Your task to perform on an android device: Search for 'The Girl on the Train' on Goodreads. Image 0: 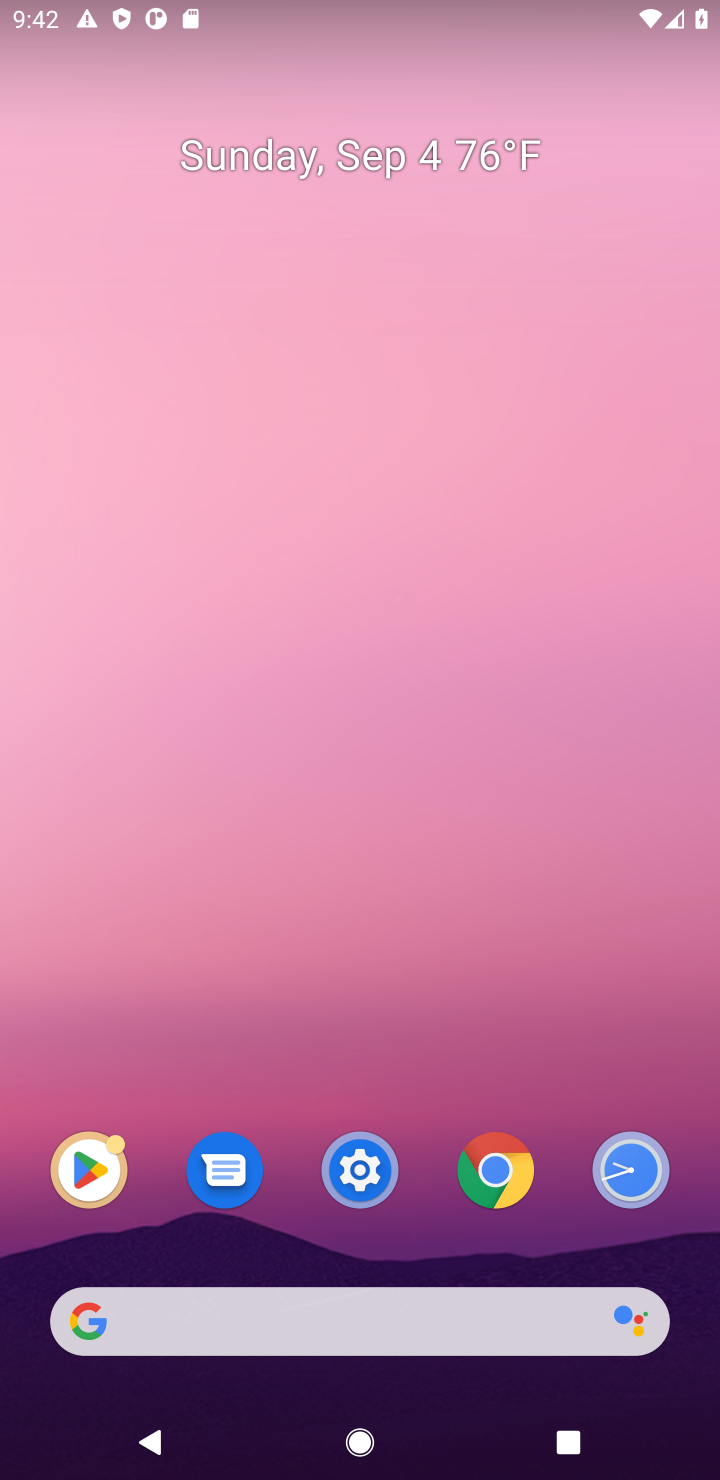
Step 0: click (368, 1313)
Your task to perform on an android device: Search for 'The Girl on the Train' on Goodreads. Image 1: 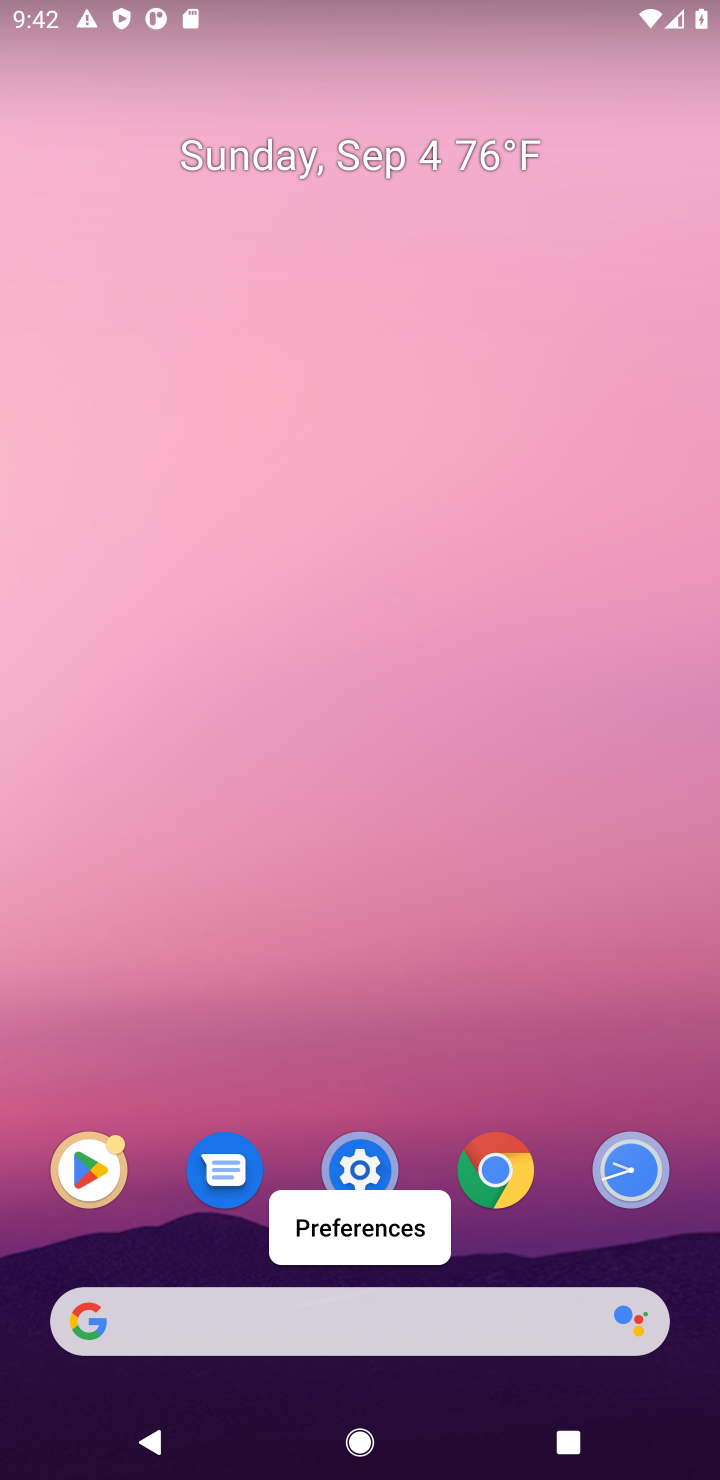
Step 1: click (310, 1324)
Your task to perform on an android device: Search for 'The Girl on the Train' on Goodreads. Image 2: 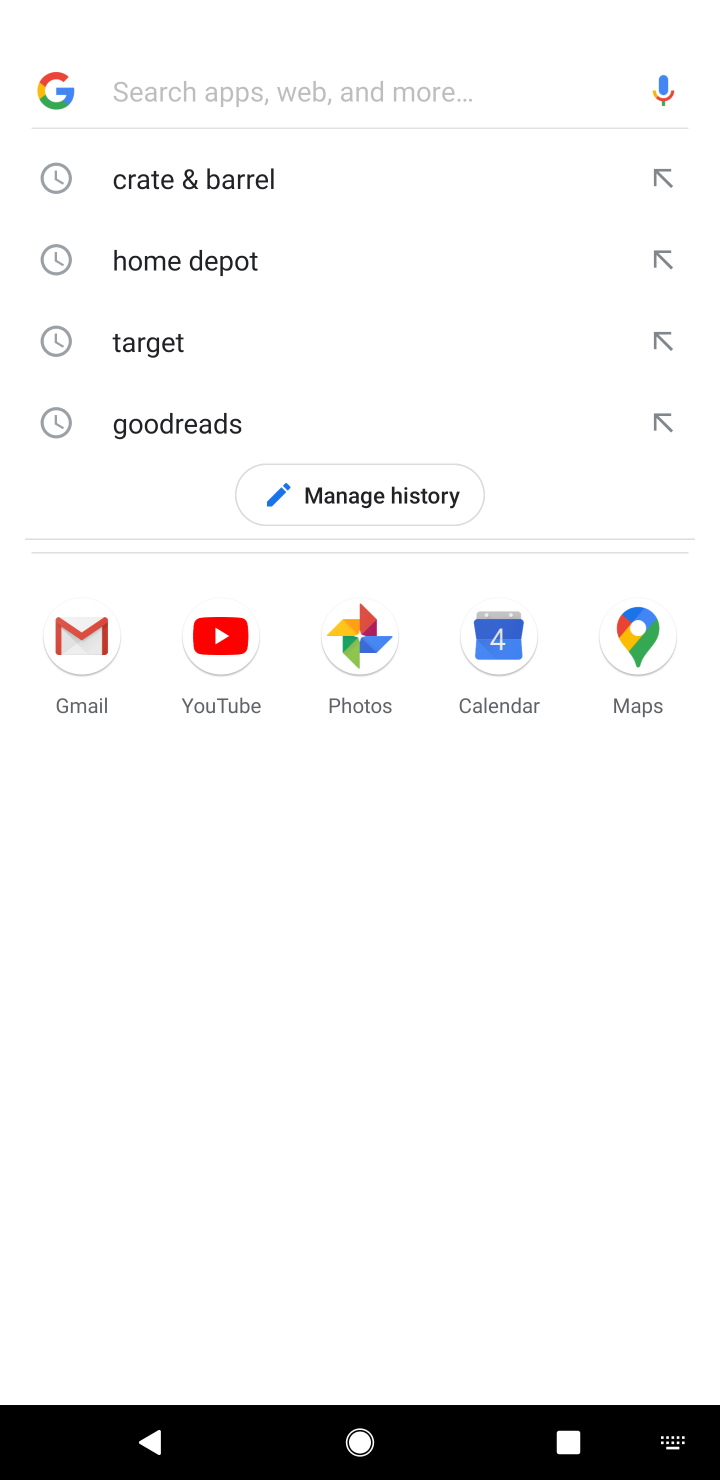
Step 2: click (184, 404)
Your task to perform on an android device: Search for 'The Girl on the Train' on Goodreads. Image 3: 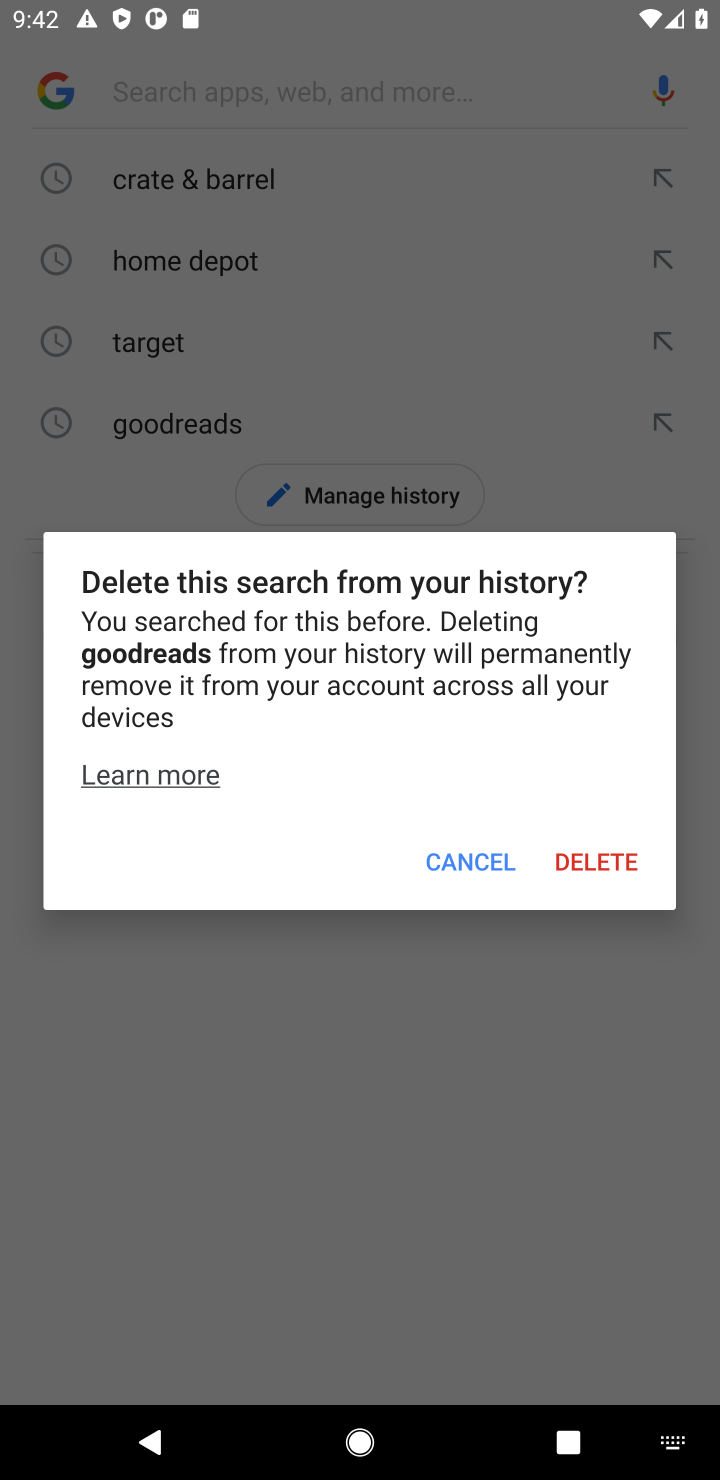
Step 3: click (500, 844)
Your task to perform on an android device: Search for 'The Girl on the Train' on Goodreads. Image 4: 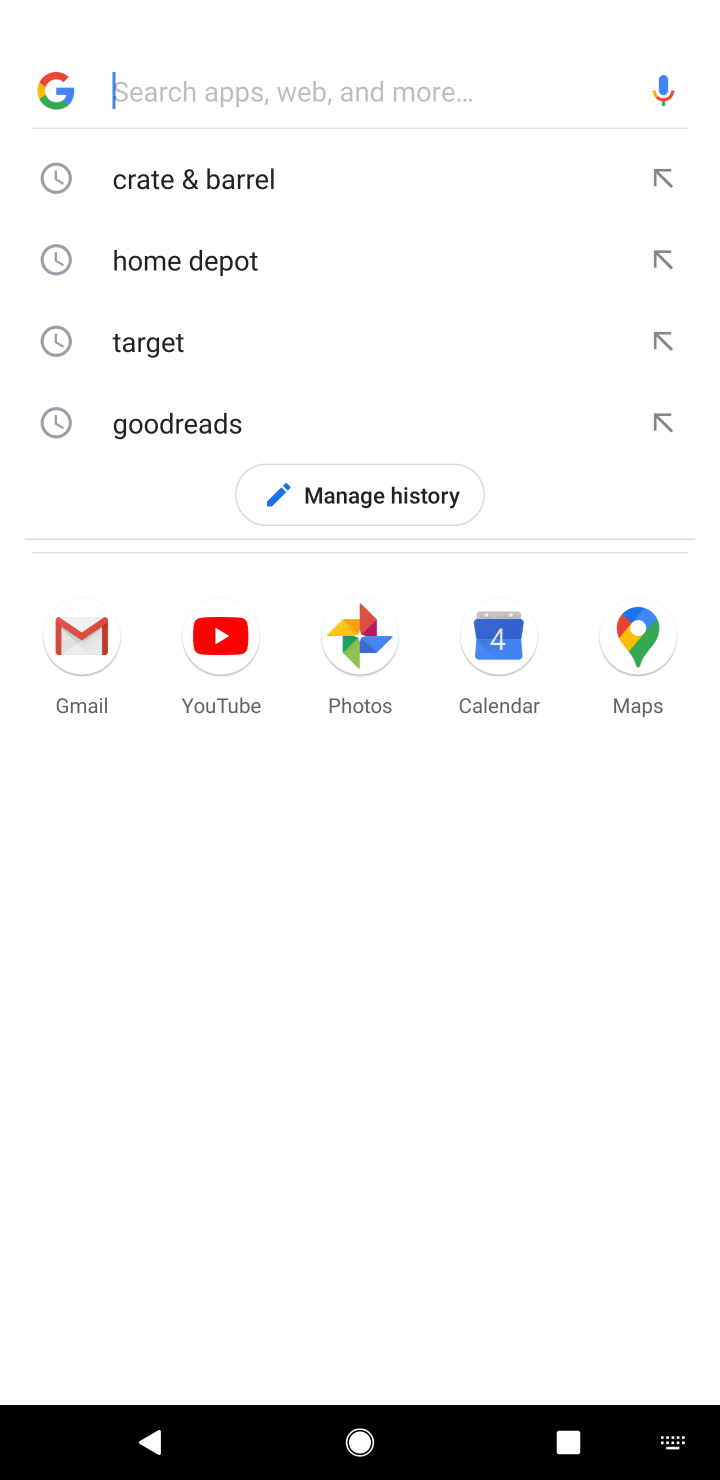
Step 4: click (292, 417)
Your task to perform on an android device: Search for 'The Girl on the Train' on Goodreads. Image 5: 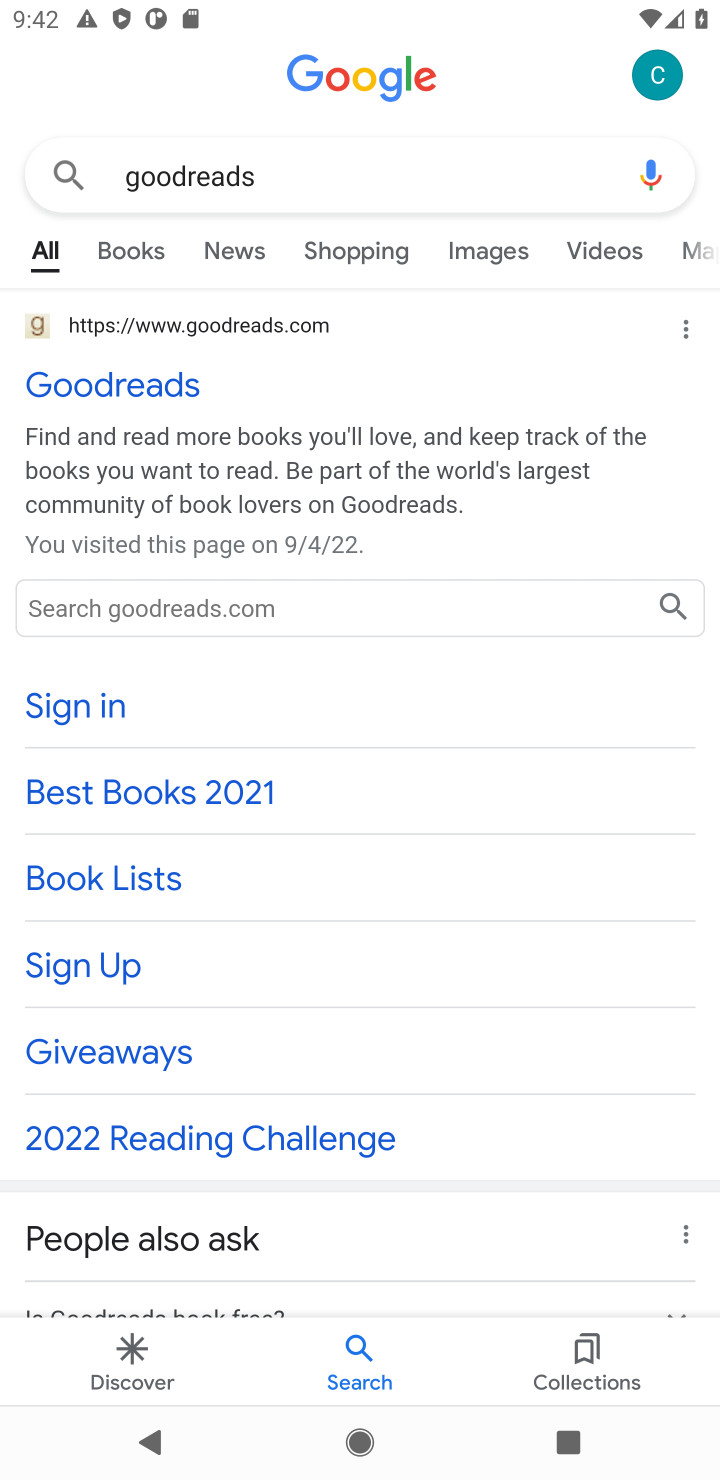
Step 5: click (141, 415)
Your task to perform on an android device: Search for 'The Girl on the Train' on Goodreads. Image 6: 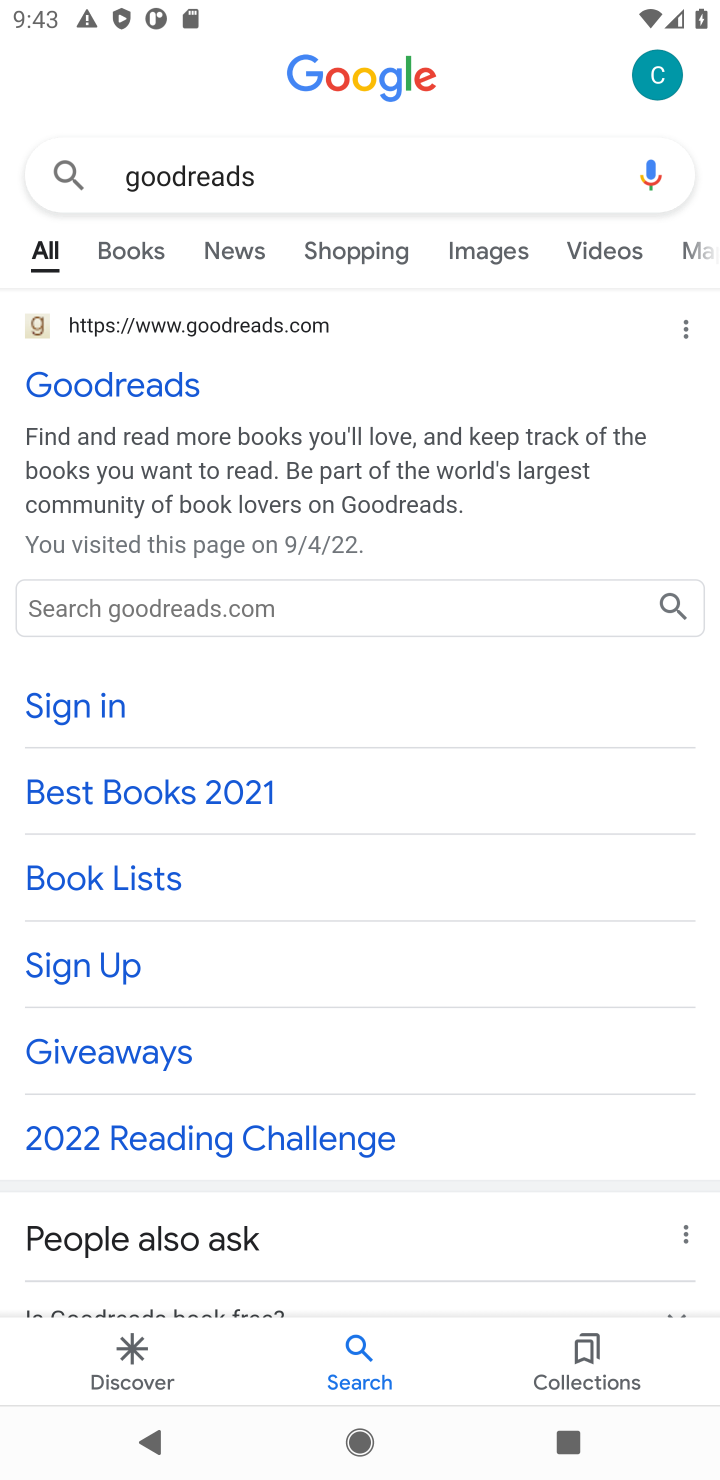
Step 6: click (131, 394)
Your task to perform on an android device: Search for 'The Girl on the Train' on Goodreads. Image 7: 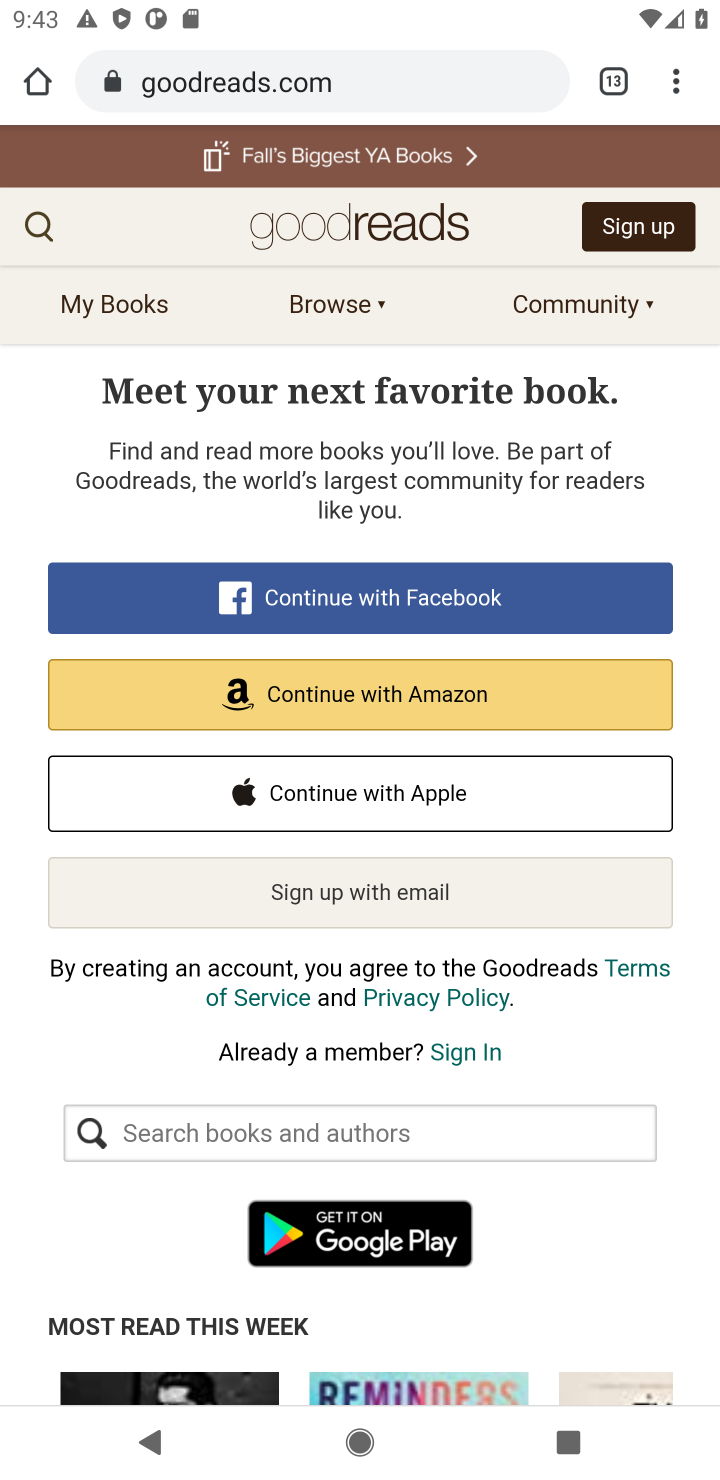
Step 7: click (45, 221)
Your task to perform on an android device: Search for 'The Girl on the Train' on Goodreads. Image 8: 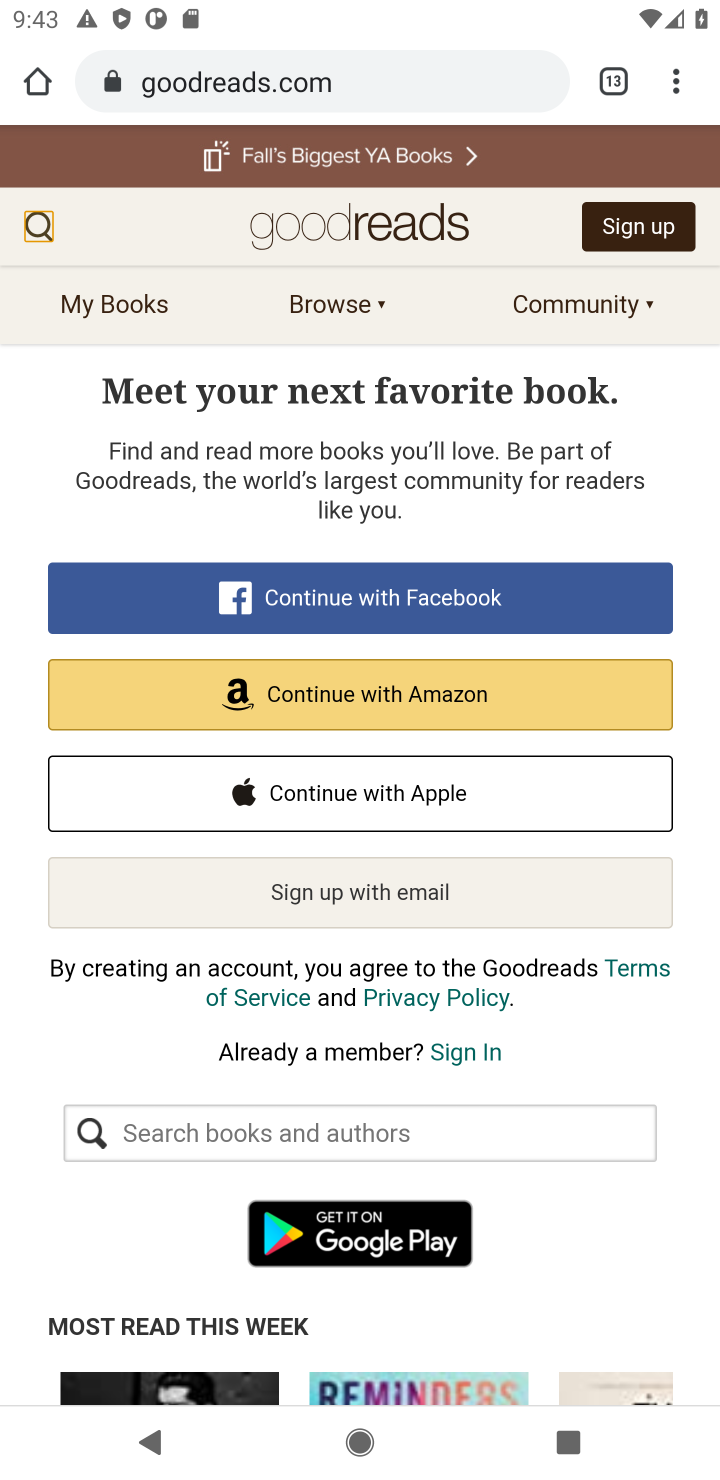
Step 8: click (52, 233)
Your task to perform on an android device: Search for 'The Girl on the Train' on Goodreads. Image 9: 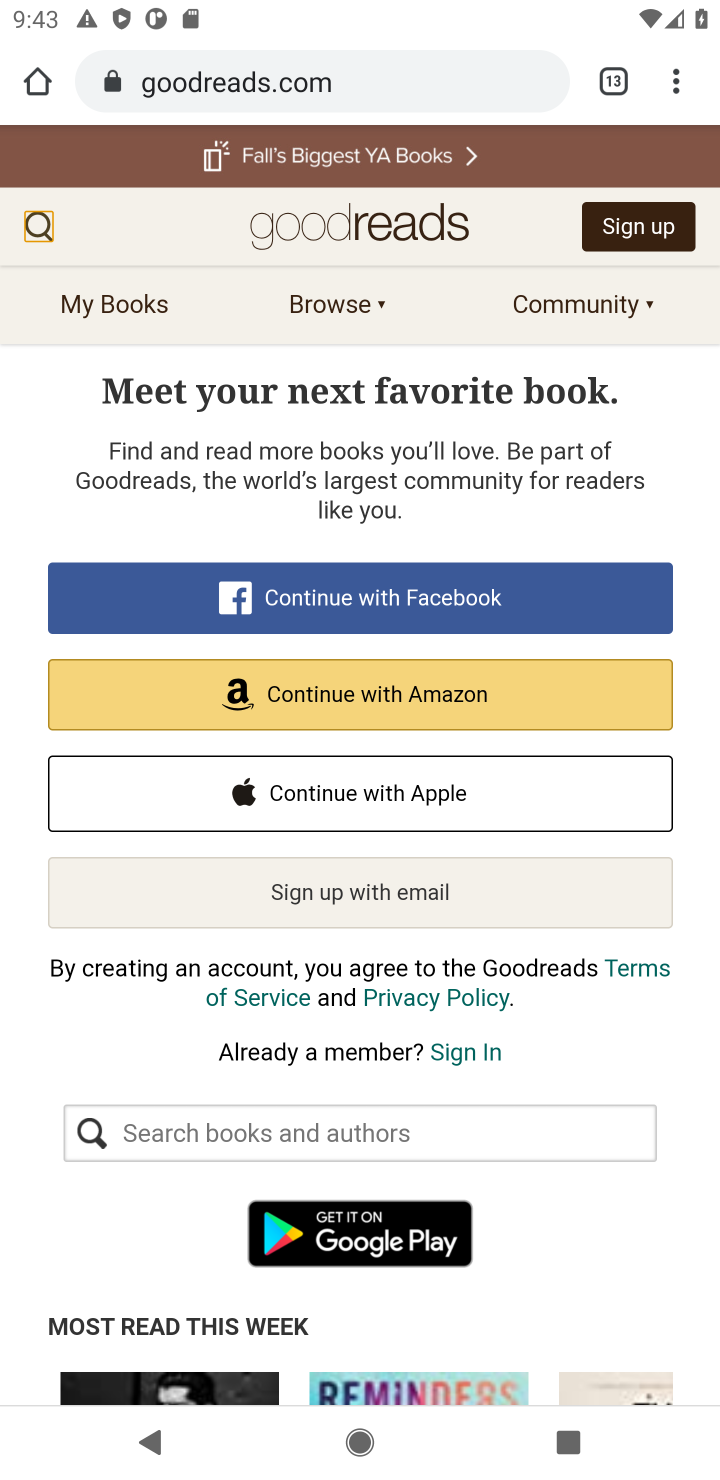
Step 9: click (52, 233)
Your task to perform on an android device: Search for 'The Girl on the Train' on Goodreads. Image 10: 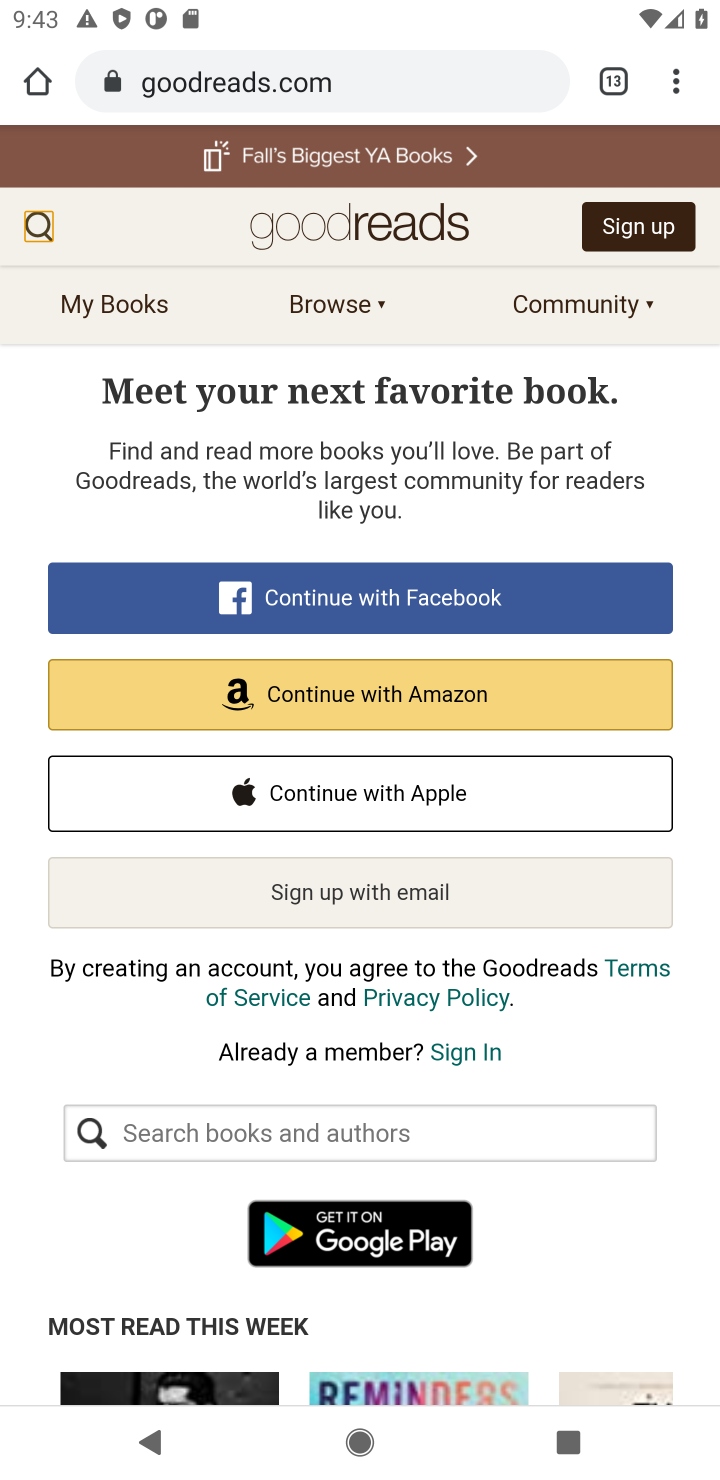
Step 10: click (45, 222)
Your task to perform on an android device: Search for 'The Girl on the Train' on Goodreads. Image 11: 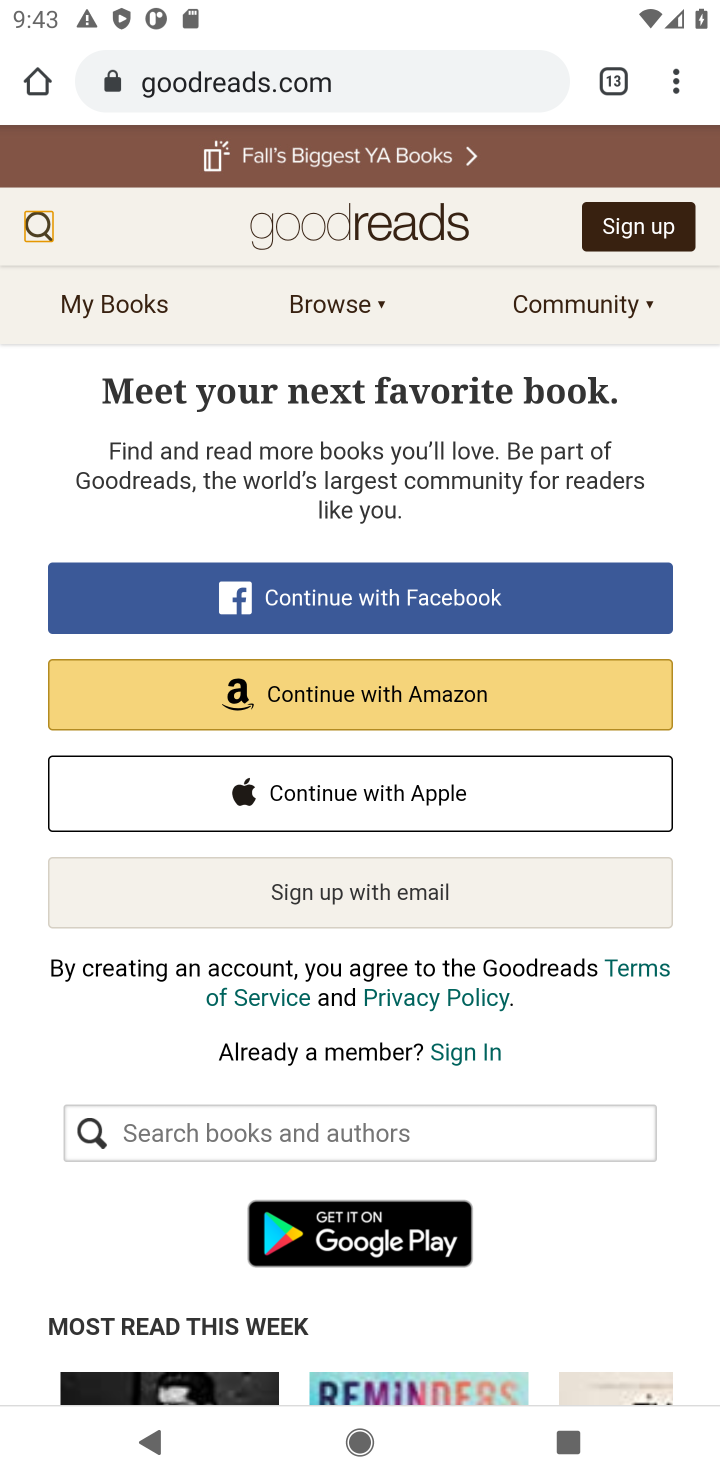
Step 11: click (38, 221)
Your task to perform on an android device: Search for 'The Girl on the Train' on Goodreads. Image 12: 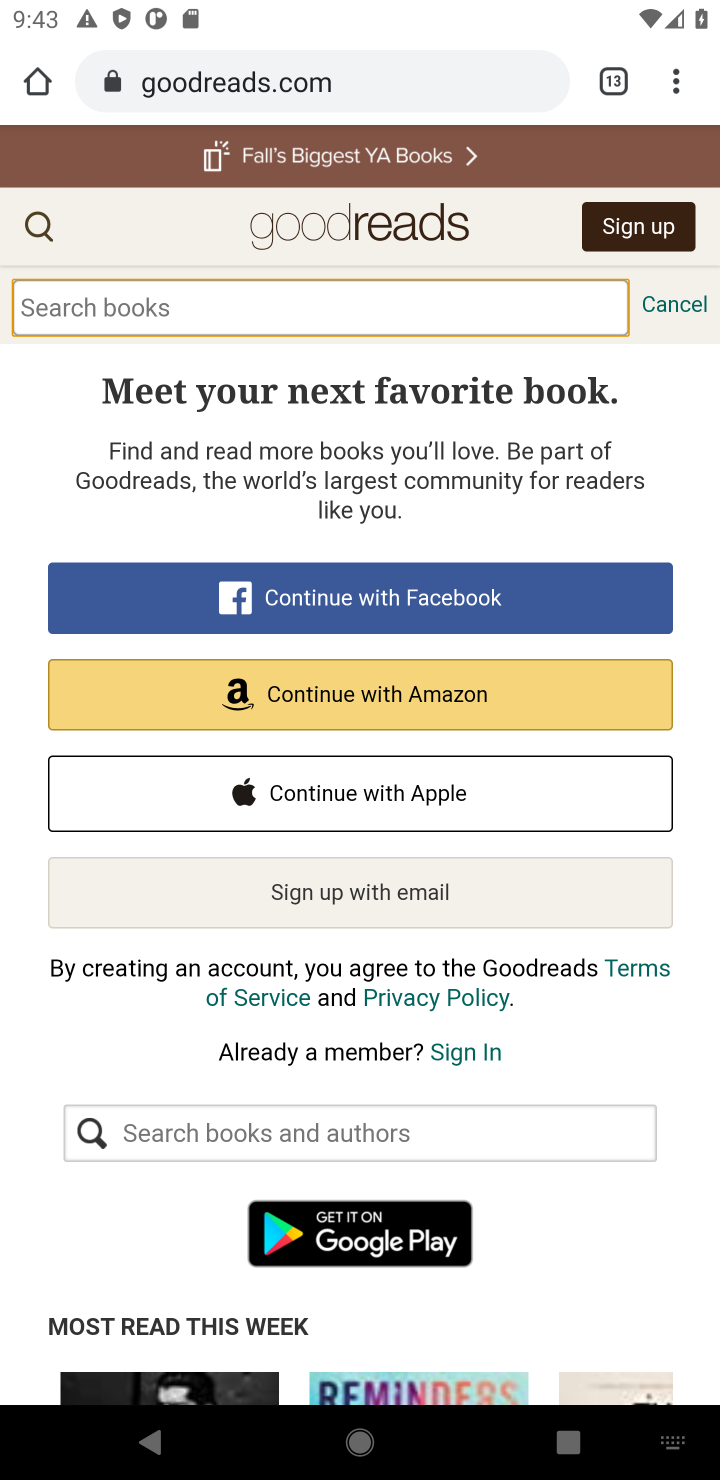
Step 12: click (89, 314)
Your task to perform on an android device: Search for 'The Girl on the Train' on Goodreads. Image 13: 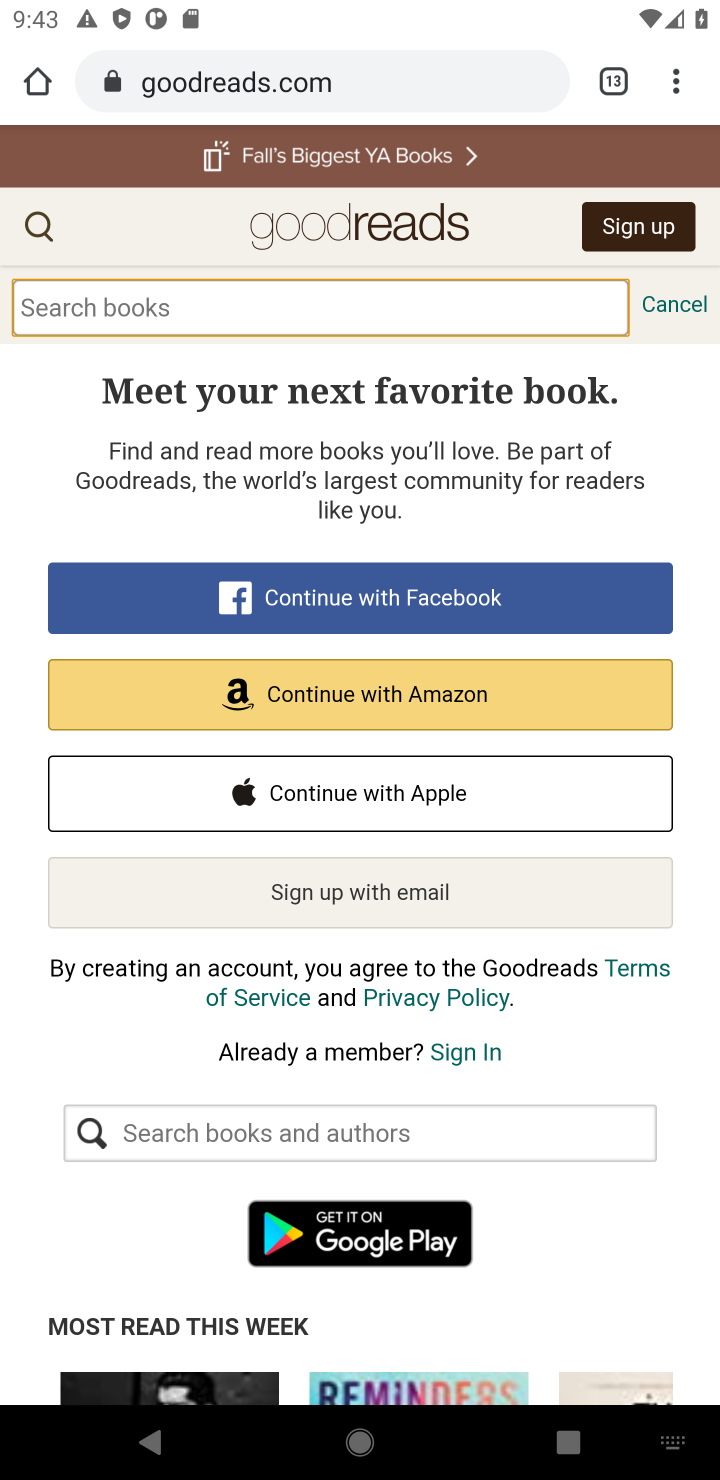
Step 13: type "The Girl on the Train'"
Your task to perform on an android device: Search for 'The Girl on the Train' on Goodreads. Image 14: 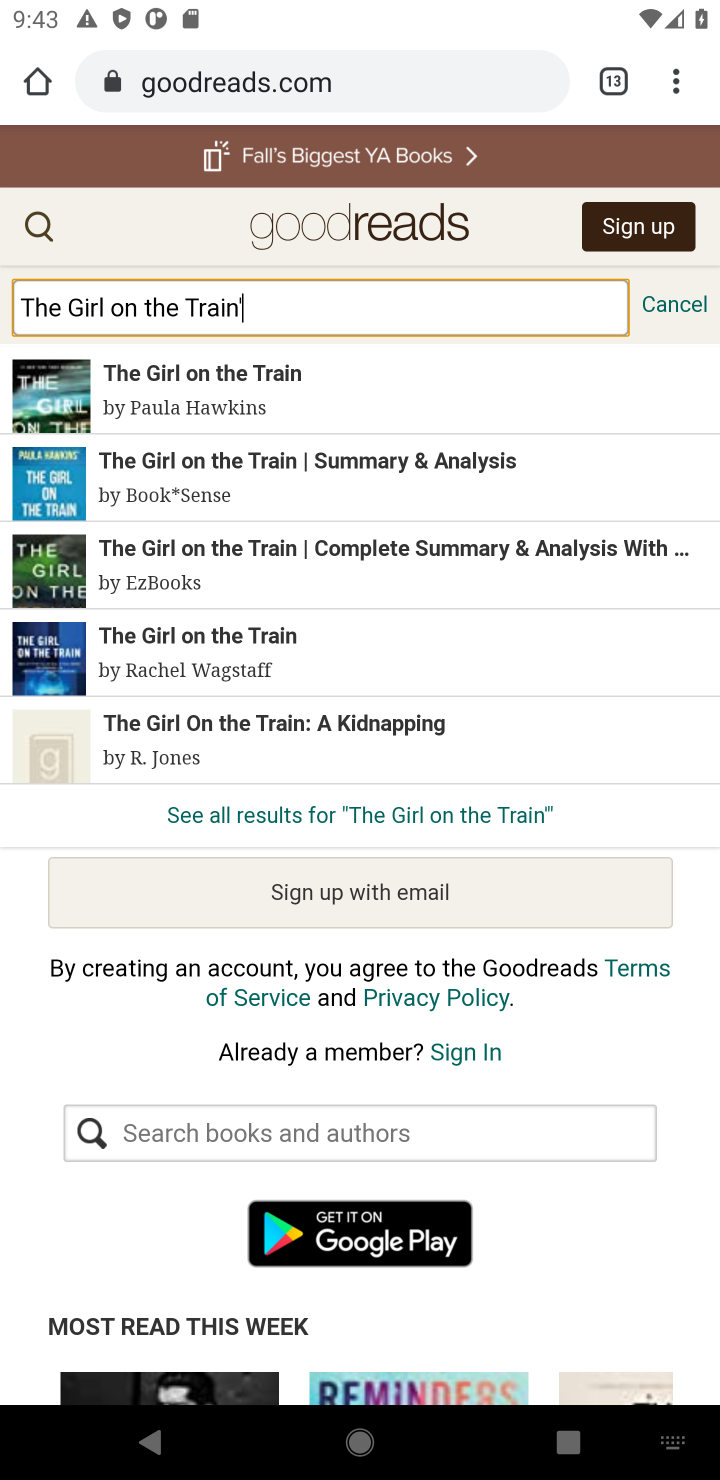
Step 14: click (390, 374)
Your task to perform on an android device: Search for 'The Girl on the Train' on Goodreads. Image 15: 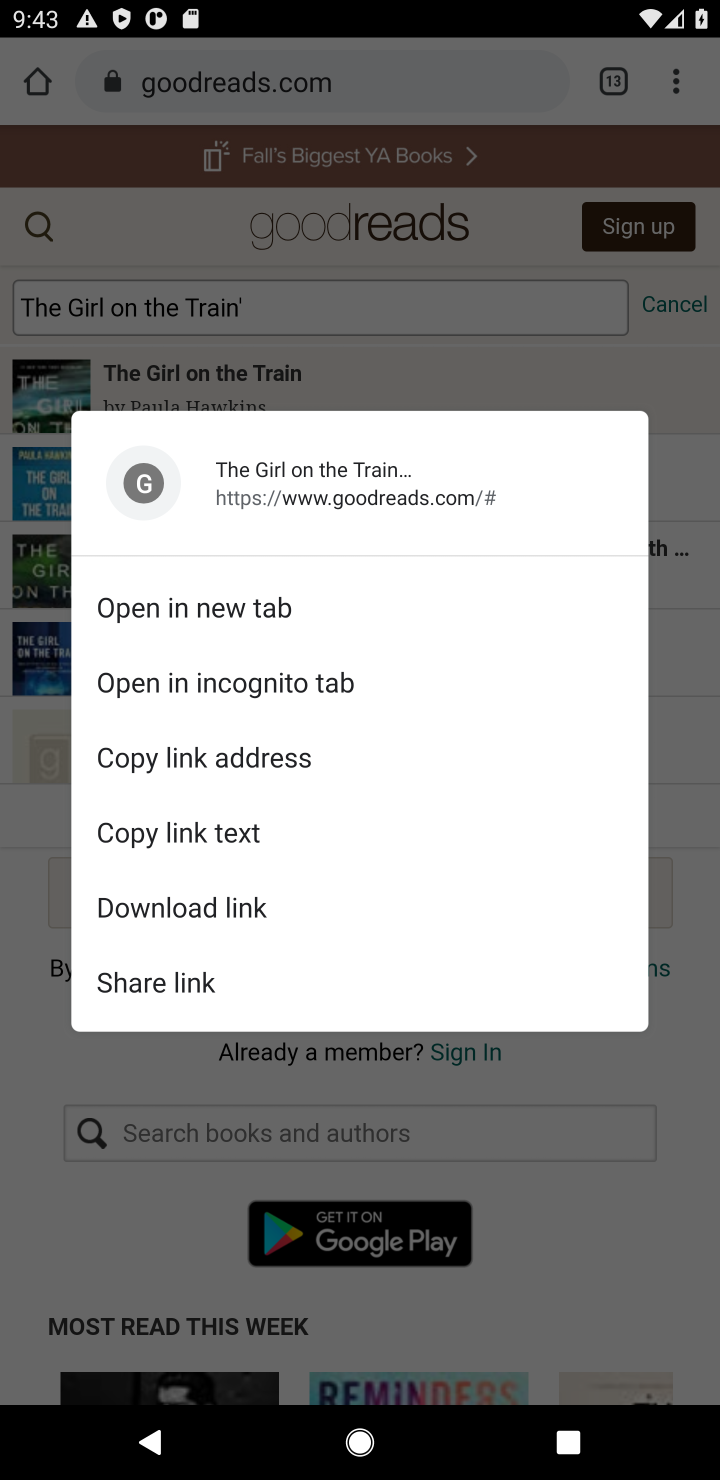
Step 15: click (704, 427)
Your task to perform on an android device: Search for 'The Girl on the Train' on Goodreads. Image 16: 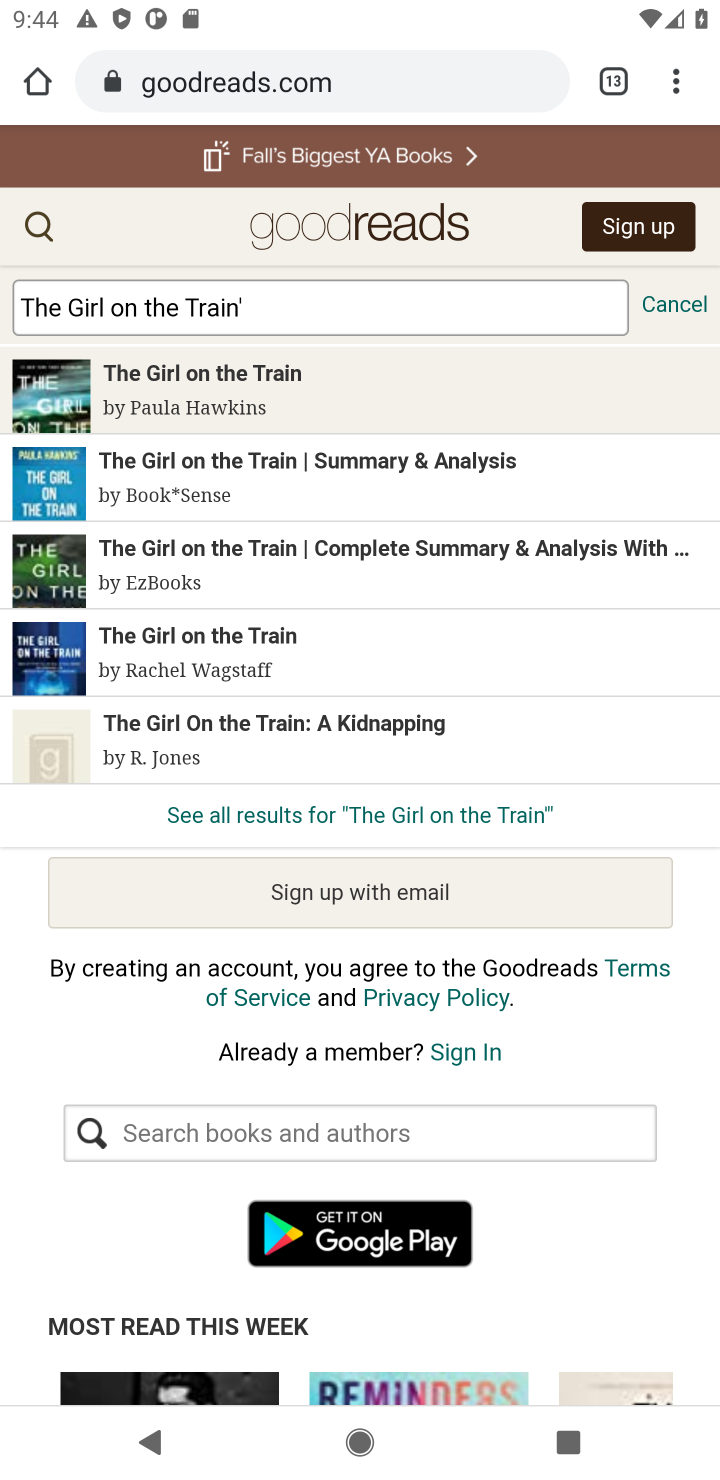
Step 16: click (574, 423)
Your task to perform on an android device: Search for 'The Girl on the Train' on Goodreads. Image 17: 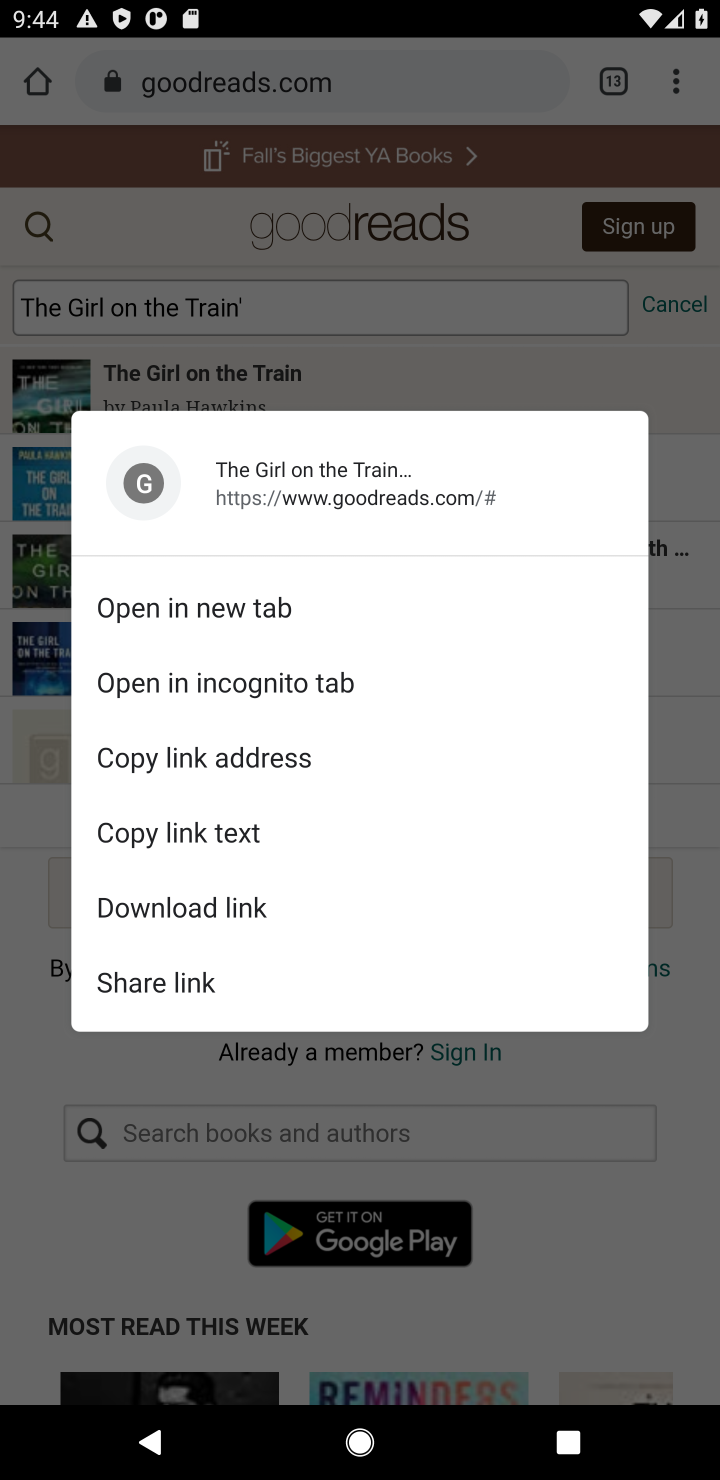
Step 17: click (626, 1102)
Your task to perform on an android device: Search for 'The Girl on the Train' on Goodreads. Image 18: 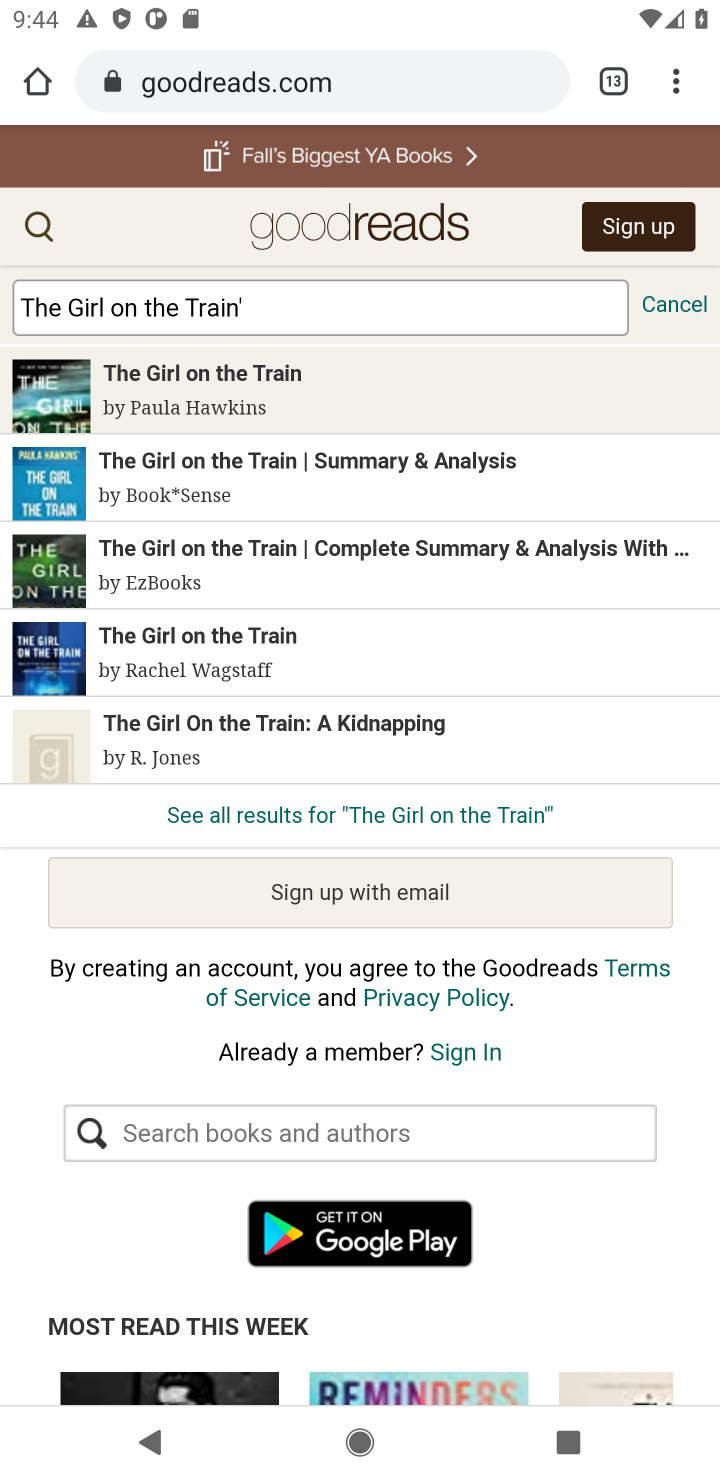
Step 18: click (369, 390)
Your task to perform on an android device: Search for 'The Girl on the Train' on Goodreads. Image 19: 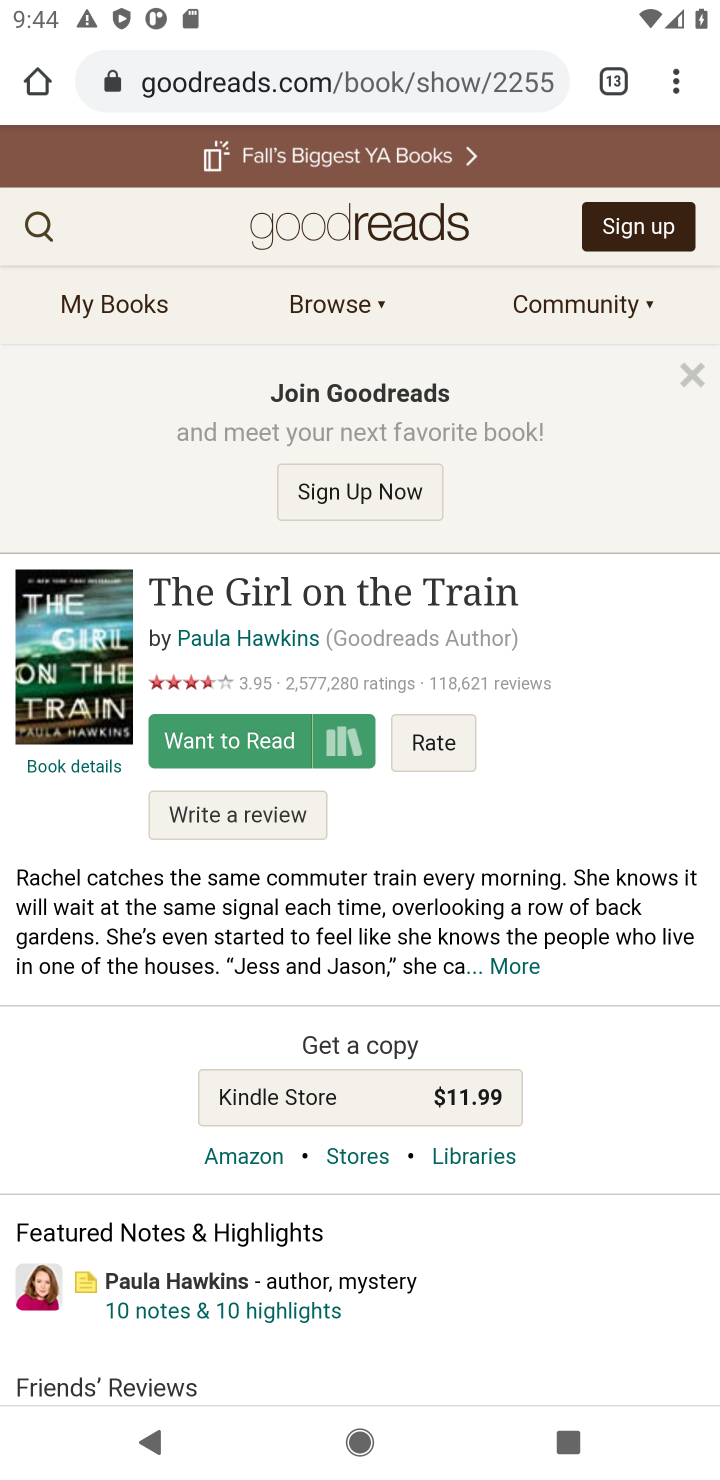
Step 19: task complete